Your task to perform on an android device: turn notification dots on Image 0: 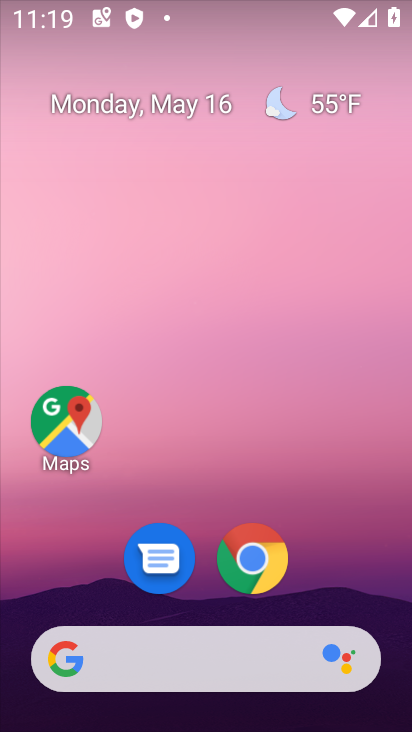
Step 0: drag from (311, 548) to (337, 172)
Your task to perform on an android device: turn notification dots on Image 1: 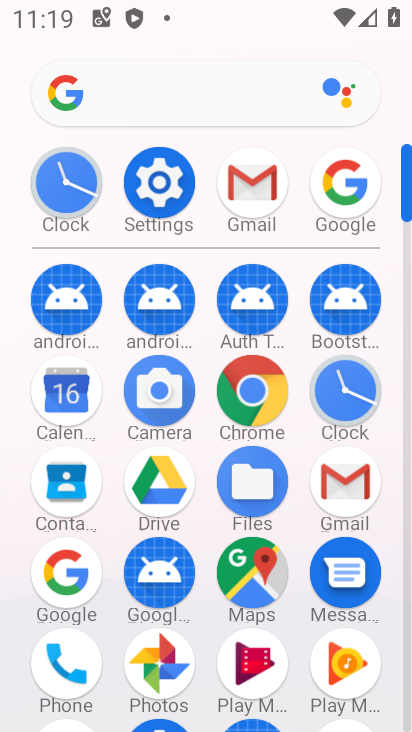
Step 1: click (156, 187)
Your task to perform on an android device: turn notification dots on Image 2: 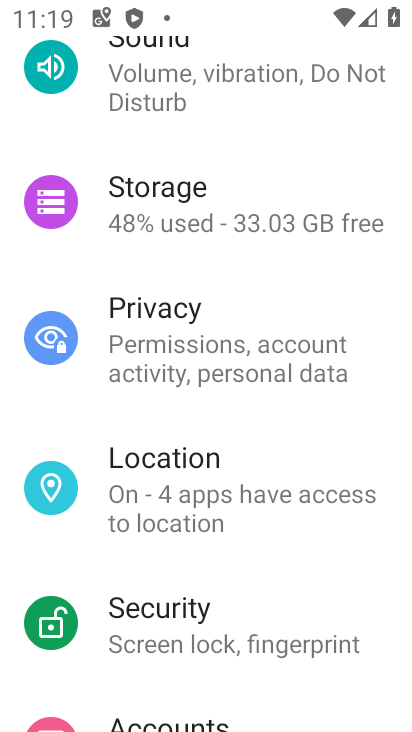
Step 2: drag from (189, 171) to (198, 580)
Your task to perform on an android device: turn notification dots on Image 3: 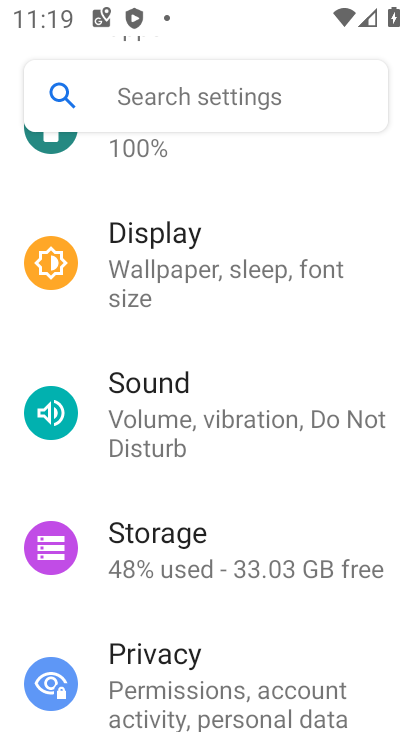
Step 3: drag from (193, 261) to (194, 598)
Your task to perform on an android device: turn notification dots on Image 4: 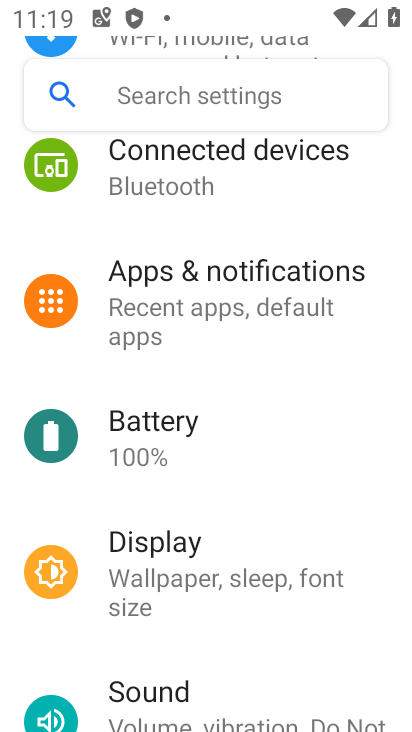
Step 4: click (181, 308)
Your task to perform on an android device: turn notification dots on Image 5: 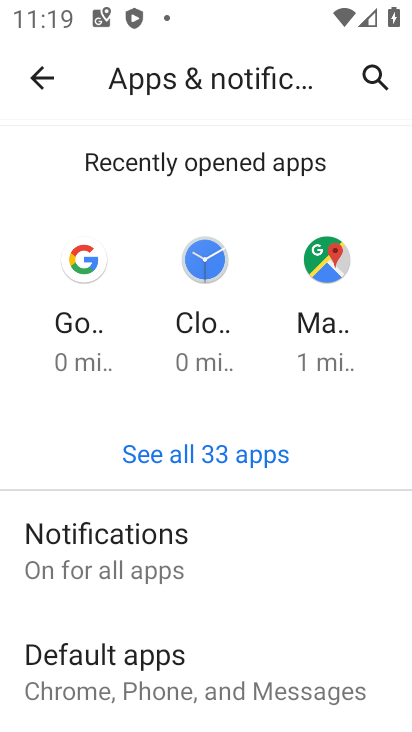
Step 5: drag from (181, 572) to (194, 269)
Your task to perform on an android device: turn notification dots on Image 6: 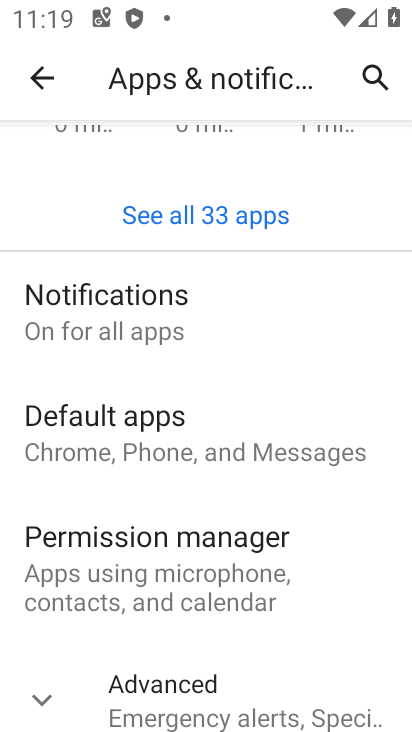
Step 6: click (130, 306)
Your task to perform on an android device: turn notification dots on Image 7: 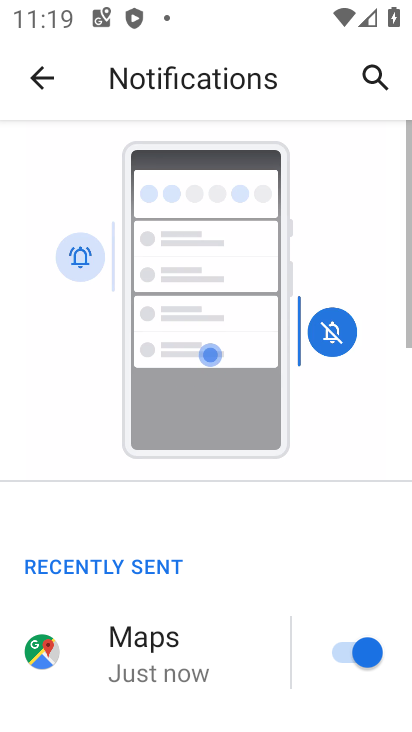
Step 7: drag from (249, 589) to (239, 60)
Your task to perform on an android device: turn notification dots on Image 8: 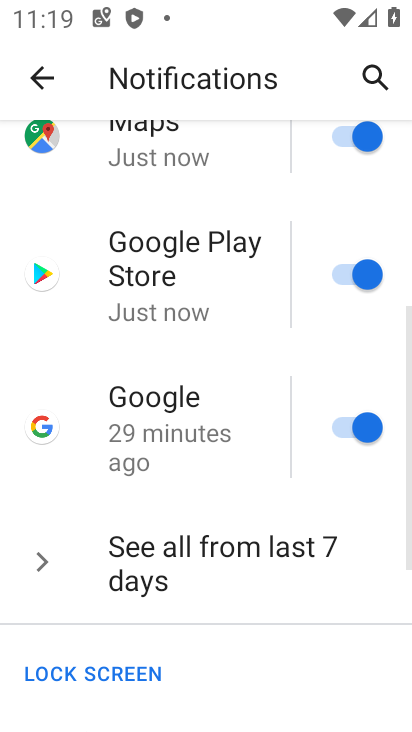
Step 8: drag from (201, 661) to (195, 295)
Your task to perform on an android device: turn notification dots on Image 9: 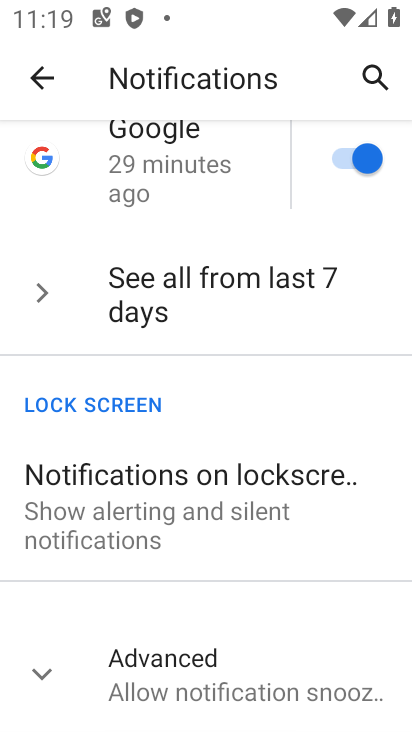
Step 9: click (143, 678)
Your task to perform on an android device: turn notification dots on Image 10: 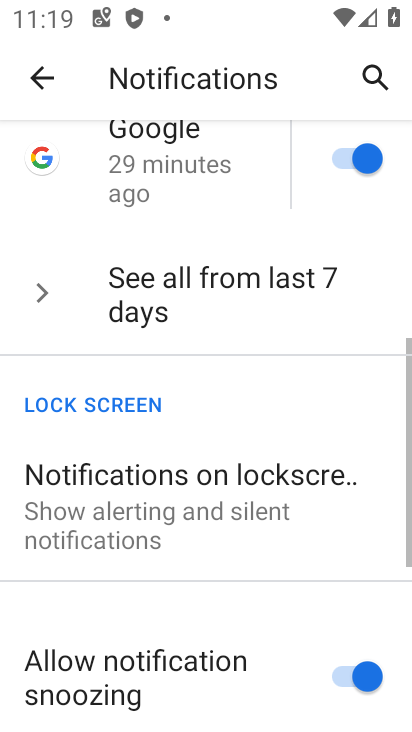
Step 10: drag from (235, 664) to (252, 262)
Your task to perform on an android device: turn notification dots on Image 11: 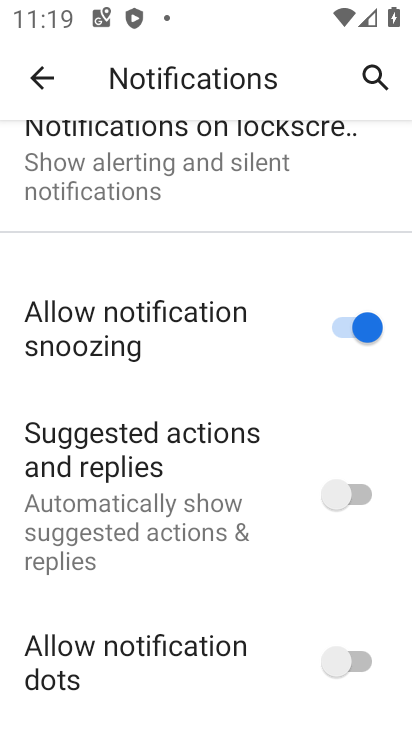
Step 11: click (345, 656)
Your task to perform on an android device: turn notification dots on Image 12: 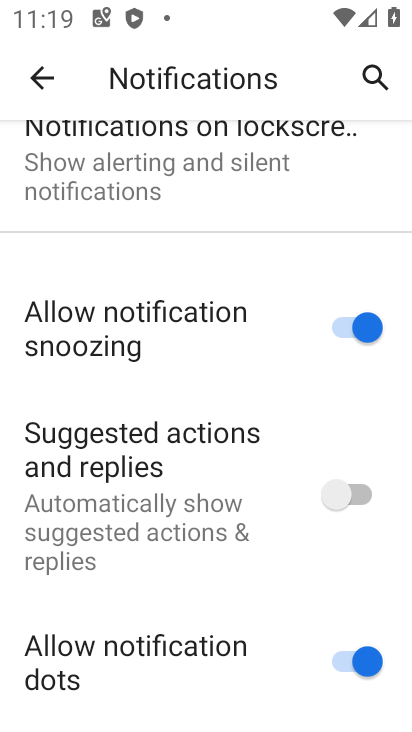
Step 12: task complete